Your task to perform on an android device: Open sound settings Image 0: 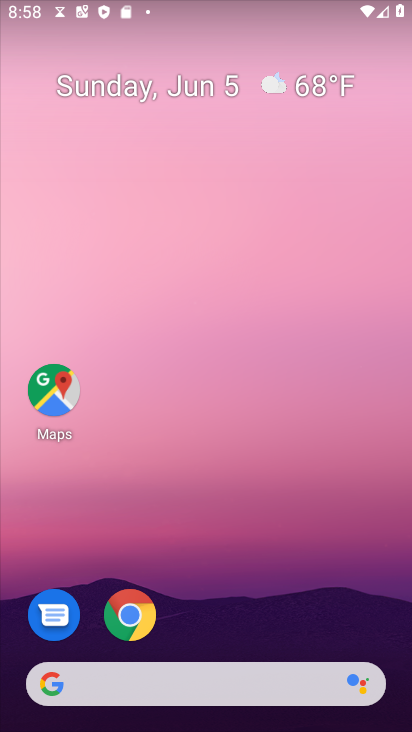
Step 0: drag from (197, 686) to (198, 189)
Your task to perform on an android device: Open sound settings Image 1: 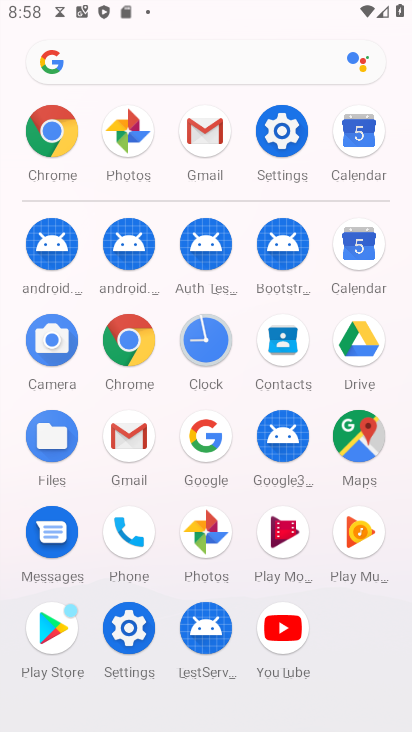
Step 1: click (271, 129)
Your task to perform on an android device: Open sound settings Image 2: 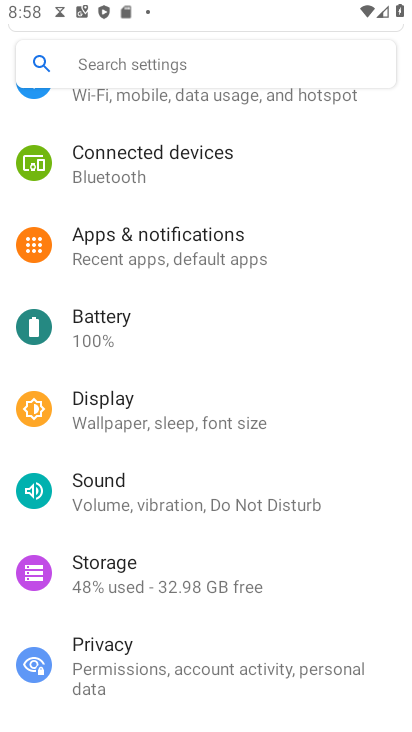
Step 2: click (106, 500)
Your task to perform on an android device: Open sound settings Image 3: 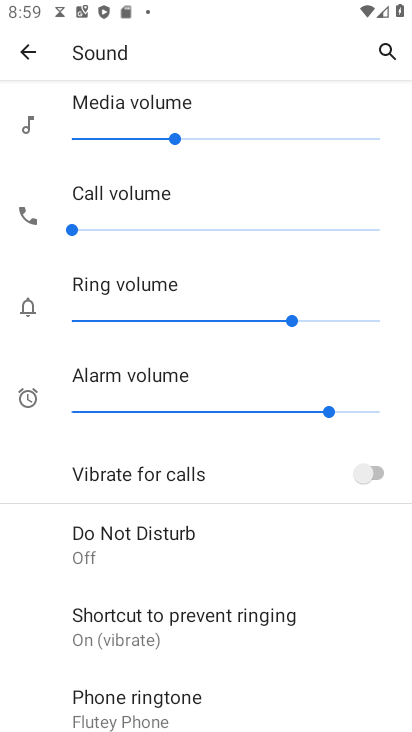
Step 3: task complete